Your task to perform on an android device: Go to eBay Image 0: 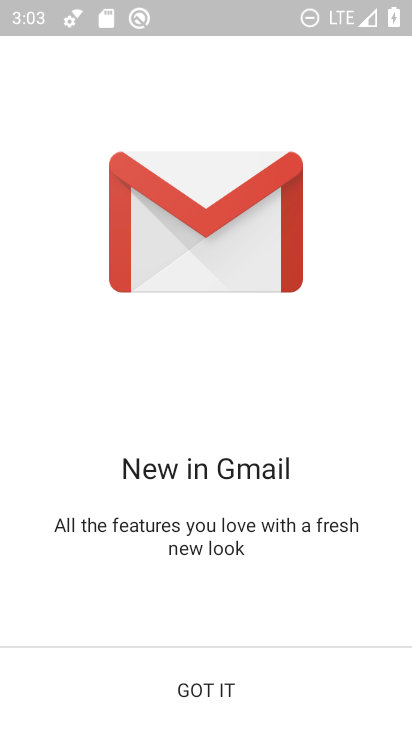
Step 0: press home button
Your task to perform on an android device: Go to eBay Image 1: 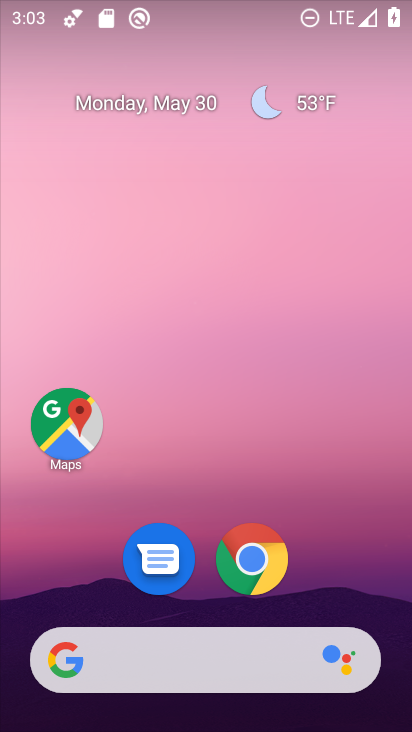
Step 1: click (202, 677)
Your task to perform on an android device: Go to eBay Image 2: 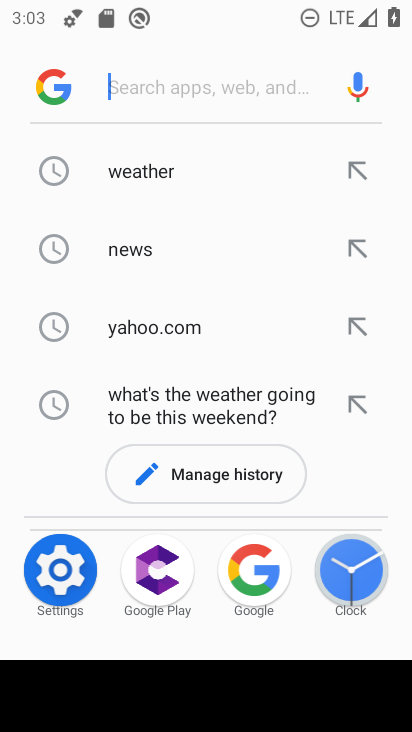
Step 2: type "eBay "
Your task to perform on an android device: Go to eBay Image 3: 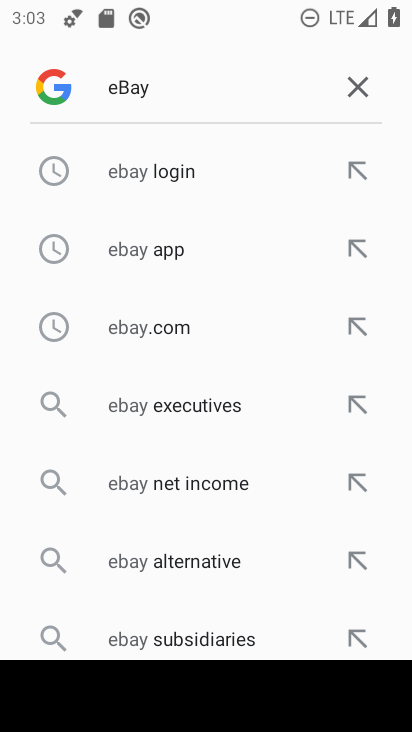
Step 3: click (210, 328)
Your task to perform on an android device: Go to eBay Image 4: 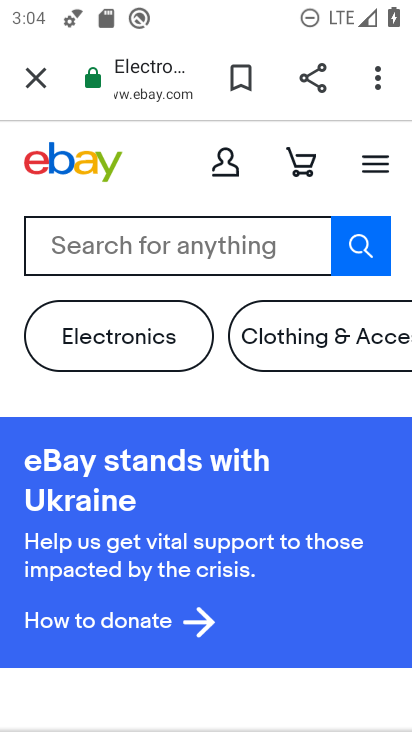
Step 4: task complete